Your task to perform on an android device: empty trash in google photos Image 0: 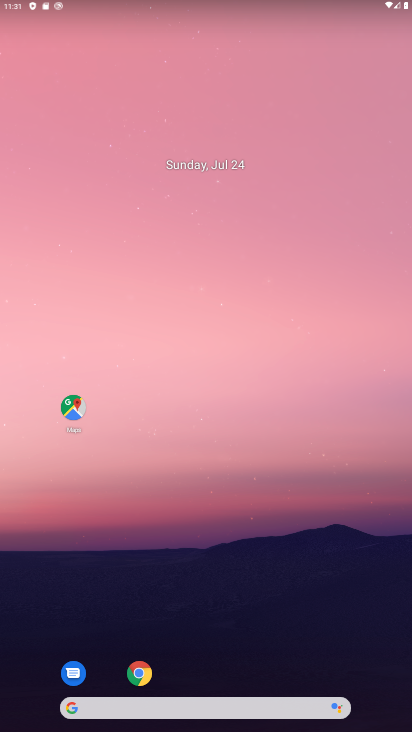
Step 0: drag from (204, 700) to (255, 122)
Your task to perform on an android device: empty trash in google photos Image 1: 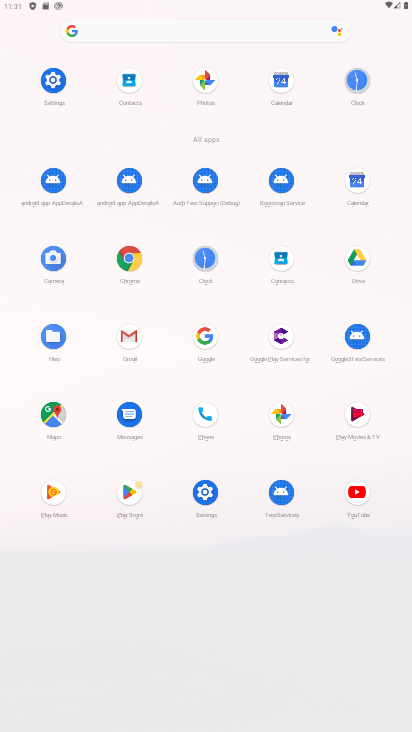
Step 1: click (207, 79)
Your task to perform on an android device: empty trash in google photos Image 2: 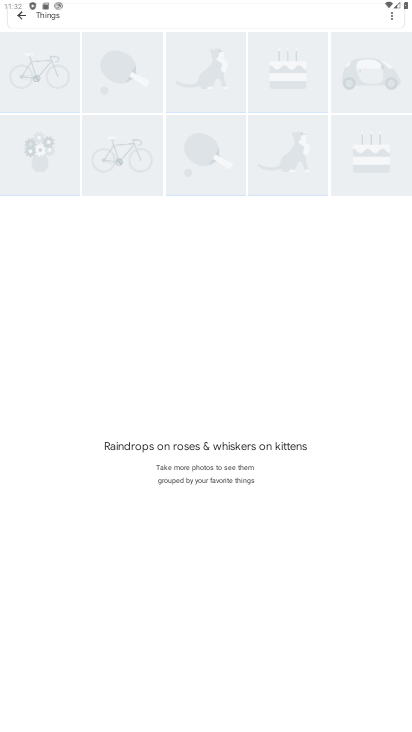
Step 2: press back button
Your task to perform on an android device: empty trash in google photos Image 3: 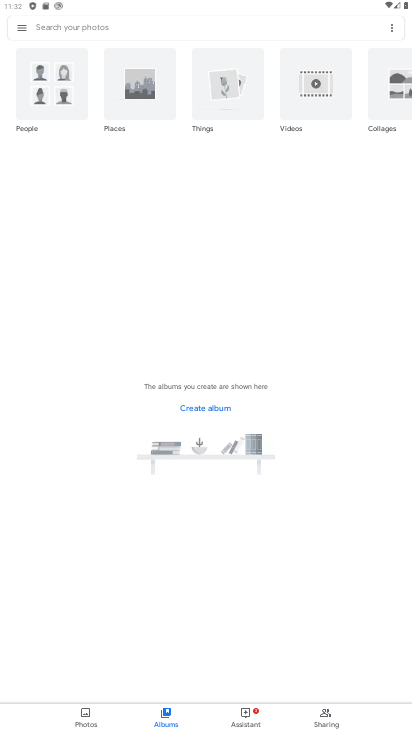
Step 3: click (22, 26)
Your task to perform on an android device: empty trash in google photos Image 4: 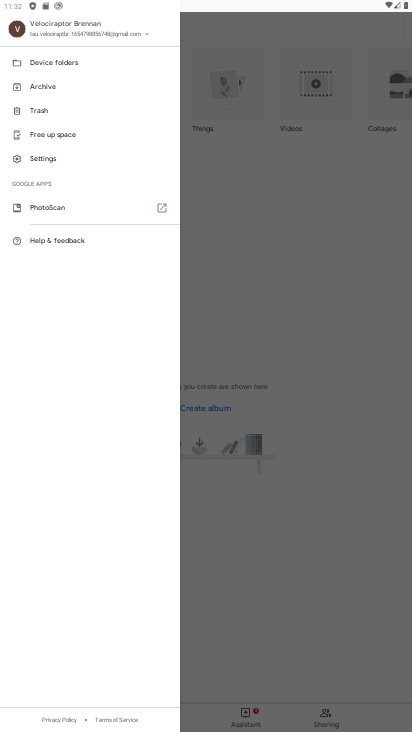
Step 4: click (35, 107)
Your task to perform on an android device: empty trash in google photos Image 5: 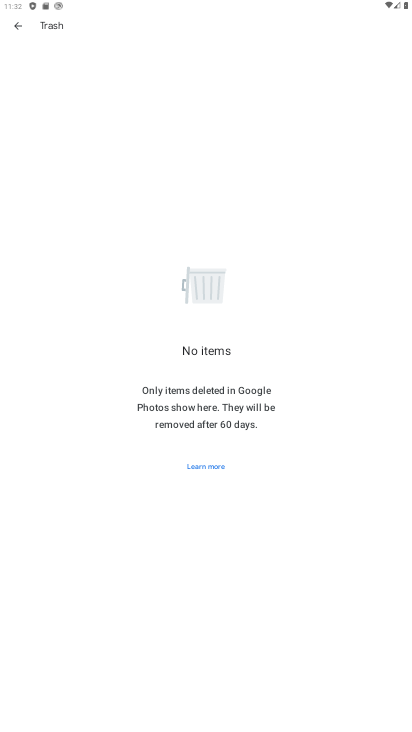
Step 5: task complete